Your task to perform on an android device: Go to calendar. Show me events next week Image 0: 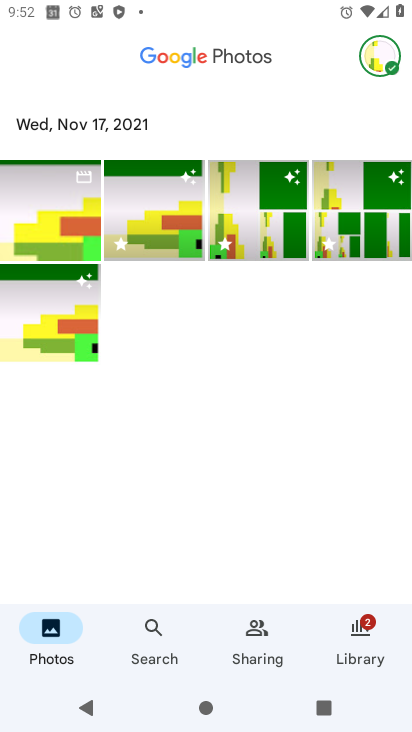
Step 0: press home button
Your task to perform on an android device: Go to calendar. Show me events next week Image 1: 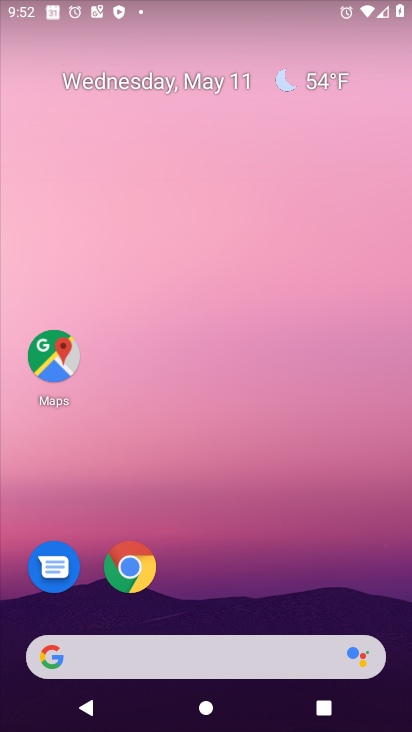
Step 1: drag from (217, 611) to (291, 70)
Your task to perform on an android device: Go to calendar. Show me events next week Image 2: 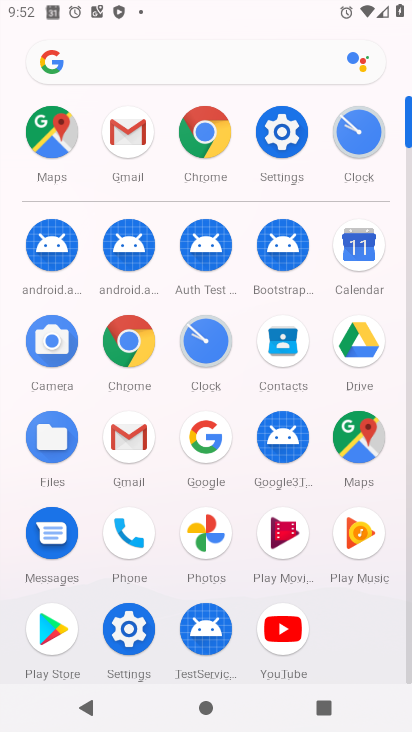
Step 2: click (369, 266)
Your task to perform on an android device: Go to calendar. Show me events next week Image 3: 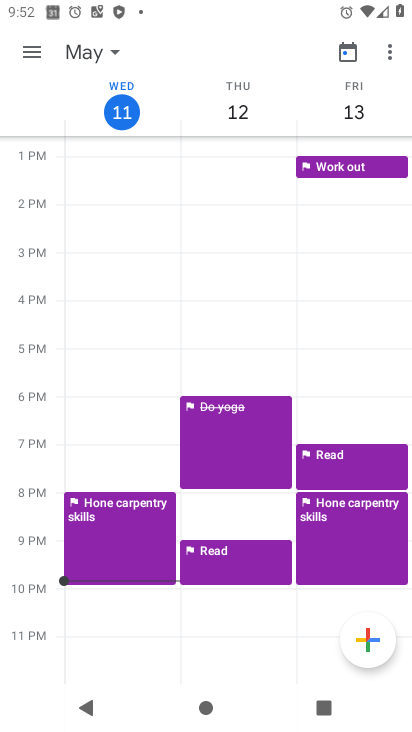
Step 3: click (13, 55)
Your task to perform on an android device: Go to calendar. Show me events next week Image 4: 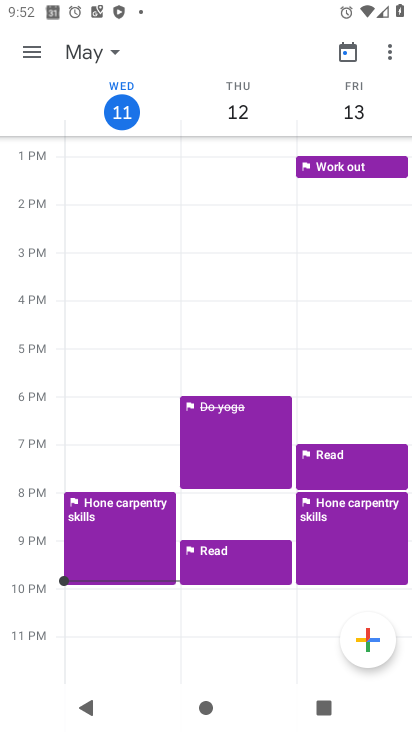
Step 4: click (23, 57)
Your task to perform on an android device: Go to calendar. Show me events next week Image 5: 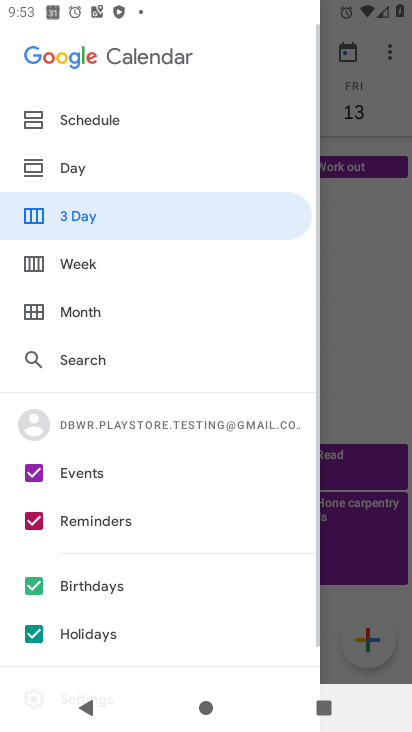
Step 5: click (108, 539)
Your task to perform on an android device: Go to calendar. Show me events next week Image 6: 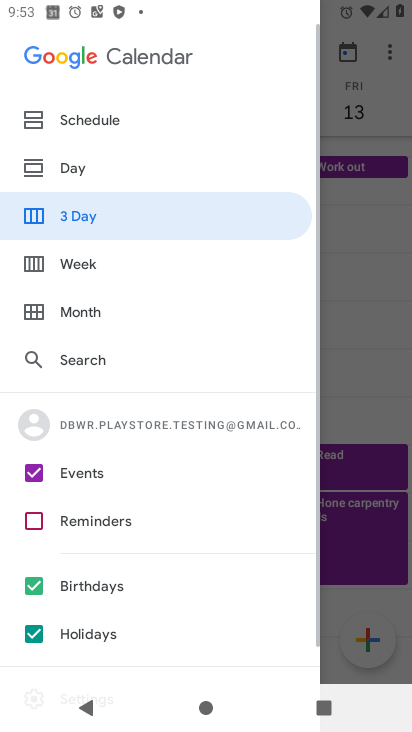
Step 6: click (105, 568)
Your task to perform on an android device: Go to calendar. Show me events next week Image 7: 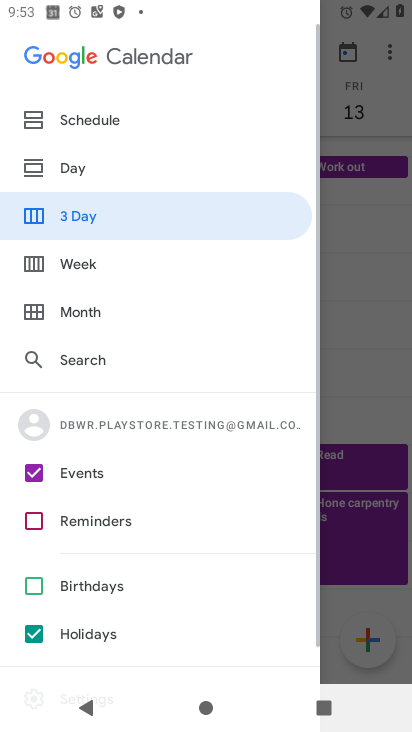
Step 7: click (99, 641)
Your task to perform on an android device: Go to calendar. Show me events next week Image 8: 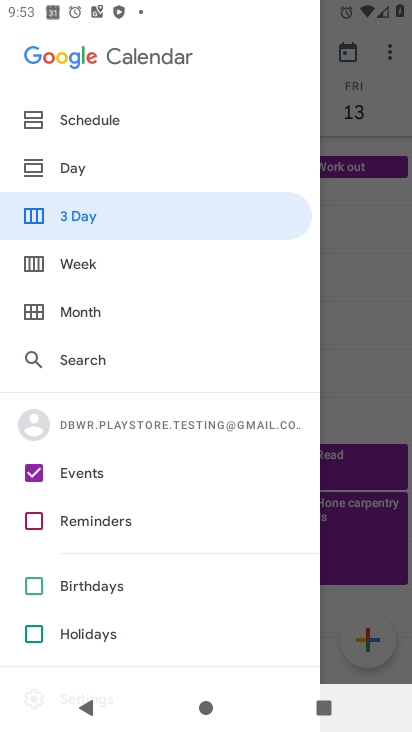
Step 8: click (87, 271)
Your task to perform on an android device: Go to calendar. Show me events next week Image 9: 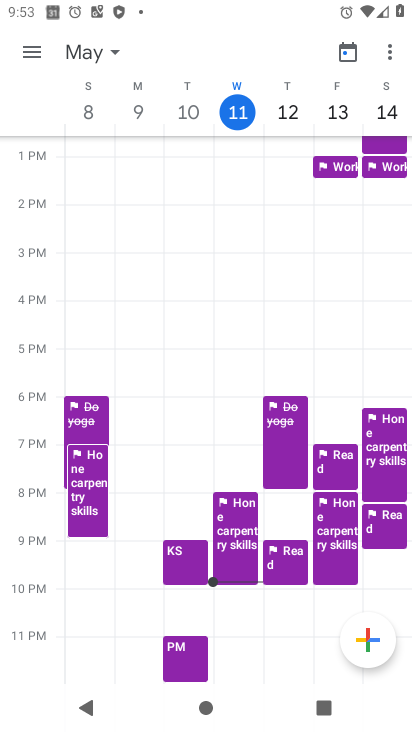
Step 9: task complete